Your task to perform on an android device: manage bookmarks in the chrome app Image 0: 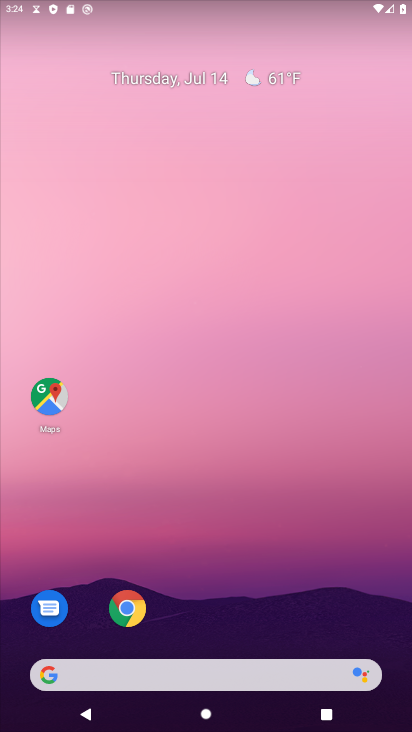
Step 0: click (129, 618)
Your task to perform on an android device: manage bookmarks in the chrome app Image 1: 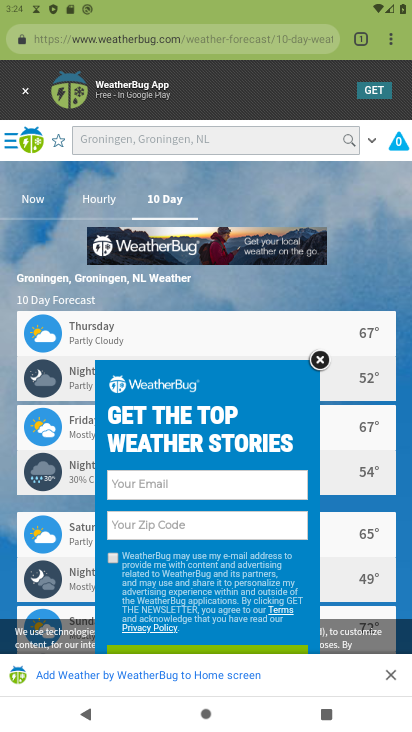
Step 1: task complete